Your task to perform on an android device: What's the weather going to be this weekend? Image 0: 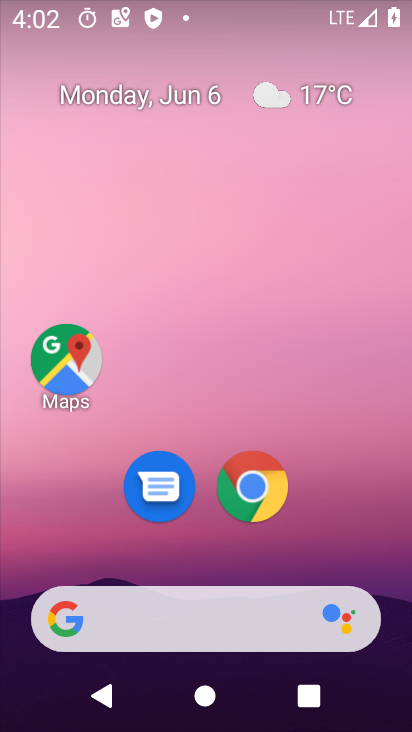
Step 0: click (325, 85)
Your task to perform on an android device: What's the weather going to be this weekend? Image 1: 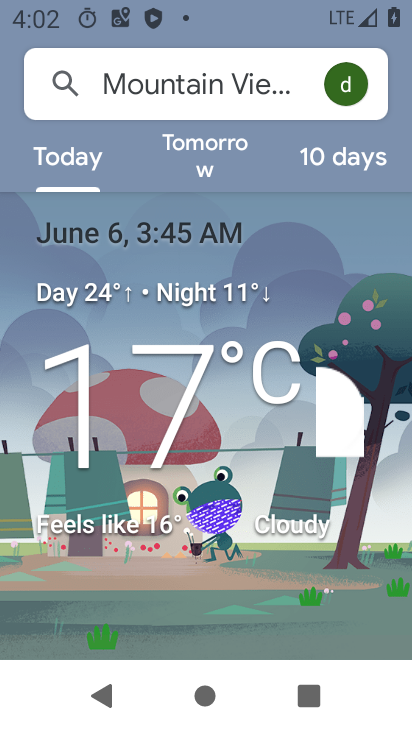
Step 1: click (345, 152)
Your task to perform on an android device: What's the weather going to be this weekend? Image 2: 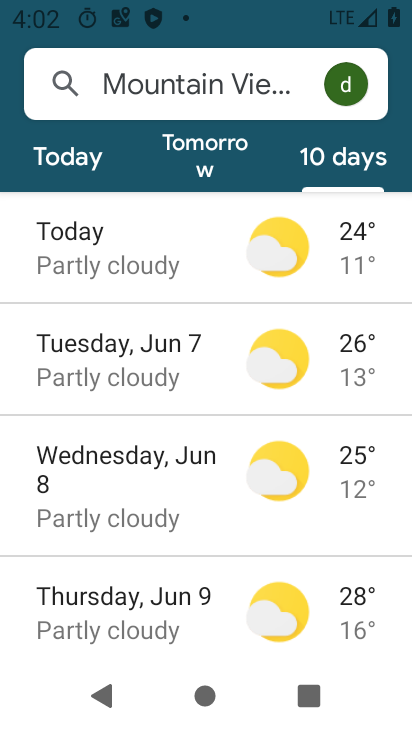
Step 2: task complete